Your task to perform on an android device: delete a single message in the gmail app Image 0: 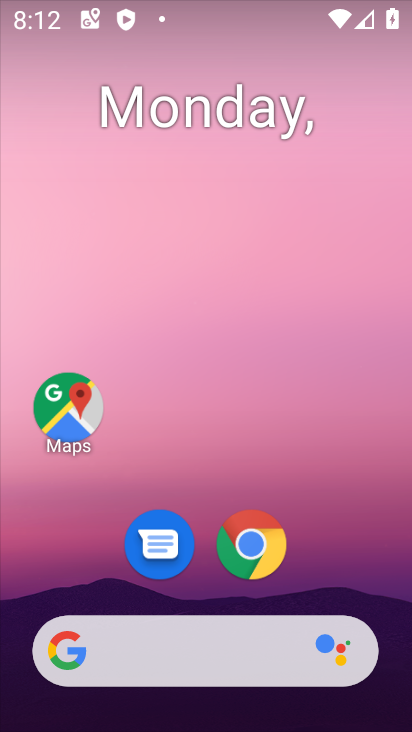
Step 0: drag from (211, 596) to (207, 14)
Your task to perform on an android device: delete a single message in the gmail app Image 1: 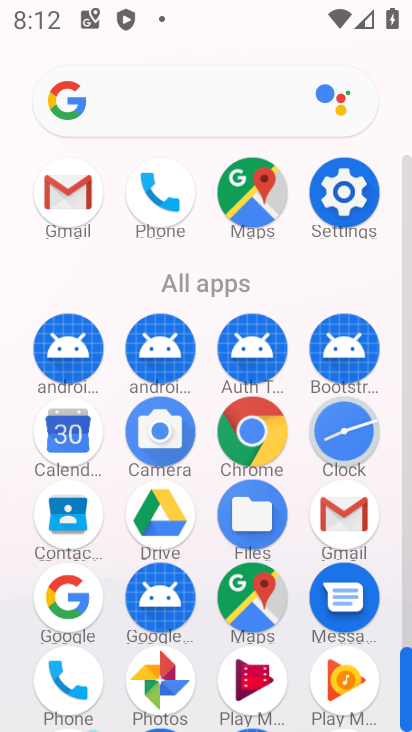
Step 1: click (352, 536)
Your task to perform on an android device: delete a single message in the gmail app Image 2: 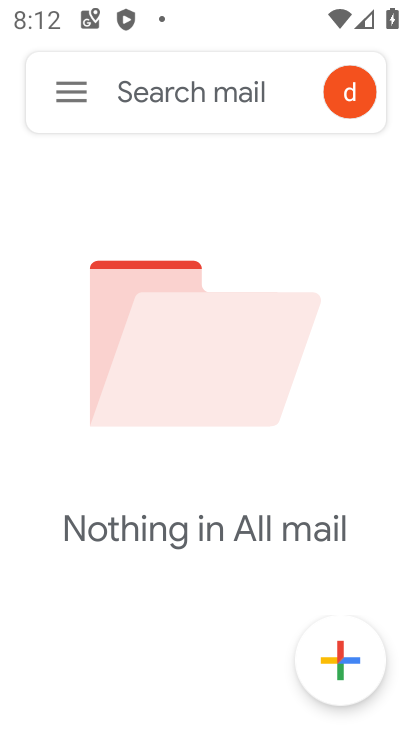
Step 2: task complete